Your task to perform on an android device: remove spam from my inbox in the gmail app Image 0: 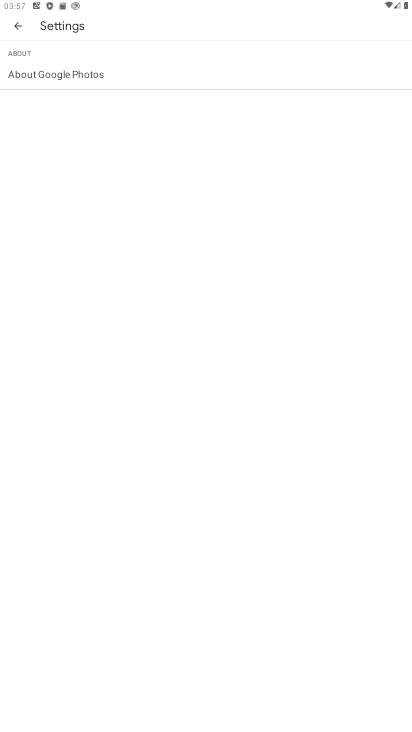
Step 0: press home button
Your task to perform on an android device: remove spam from my inbox in the gmail app Image 1: 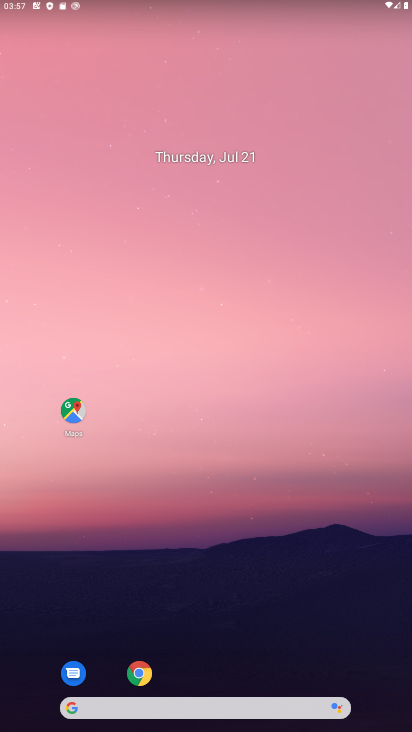
Step 1: drag from (289, 288) to (309, 99)
Your task to perform on an android device: remove spam from my inbox in the gmail app Image 2: 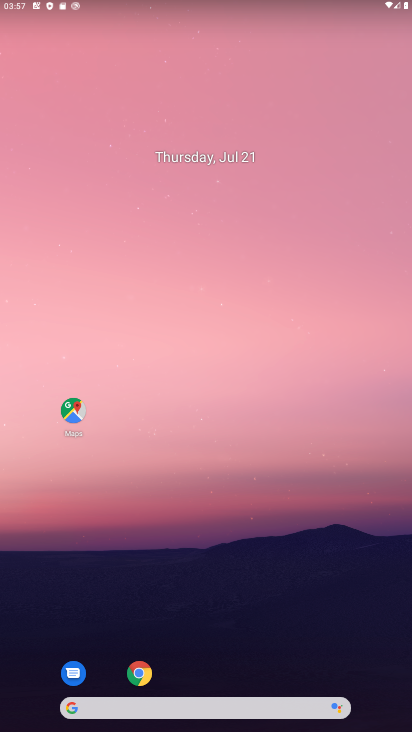
Step 2: drag from (294, 608) to (332, 103)
Your task to perform on an android device: remove spam from my inbox in the gmail app Image 3: 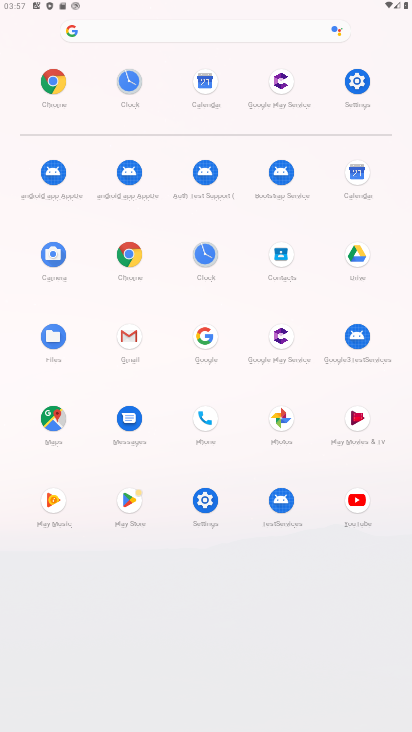
Step 3: click (133, 336)
Your task to perform on an android device: remove spam from my inbox in the gmail app Image 4: 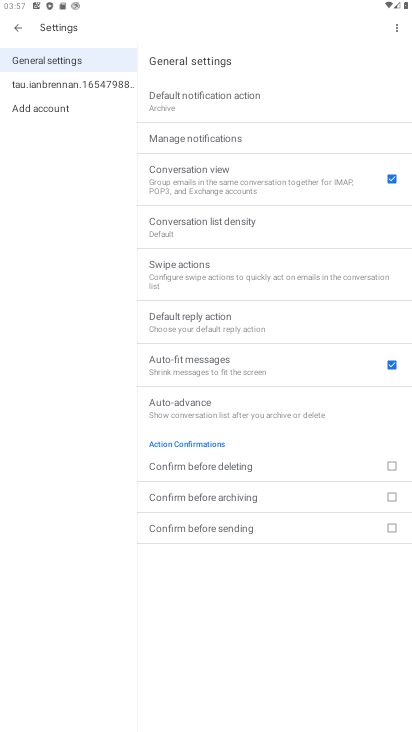
Step 4: click (23, 32)
Your task to perform on an android device: remove spam from my inbox in the gmail app Image 5: 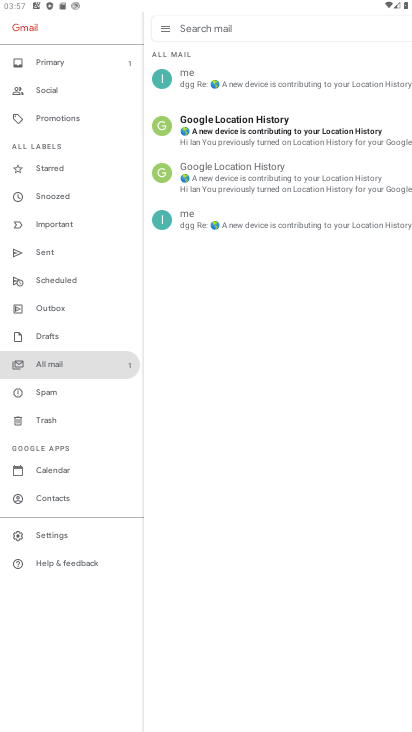
Step 5: click (59, 61)
Your task to perform on an android device: remove spam from my inbox in the gmail app Image 6: 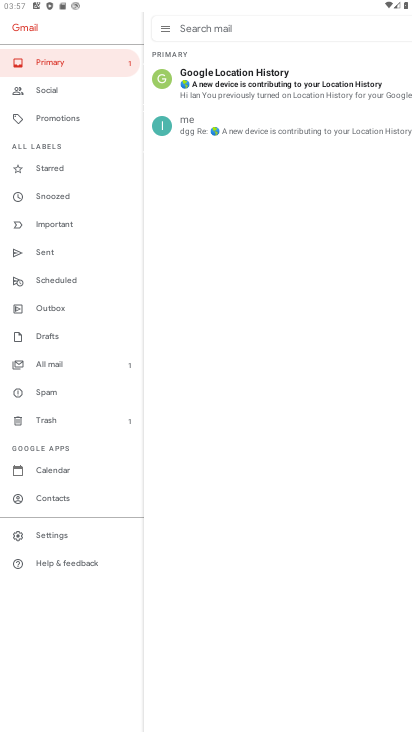
Step 6: task complete